Your task to perform on an android device: turn on bluetooth scan Image 0: 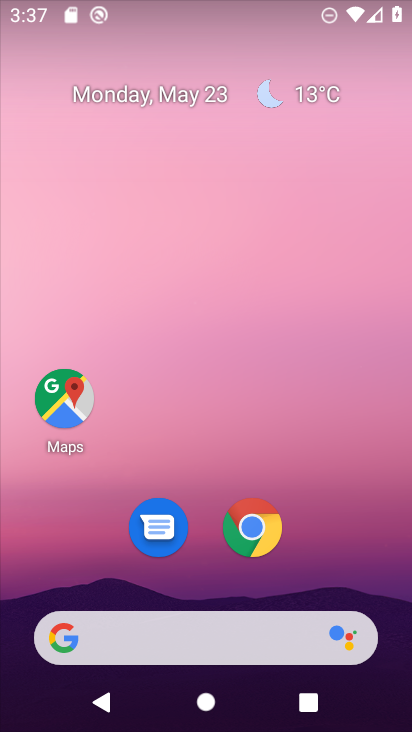
Step 0: press home button
Your task to perform on an android device: turn on bluetooth scan Image 1: 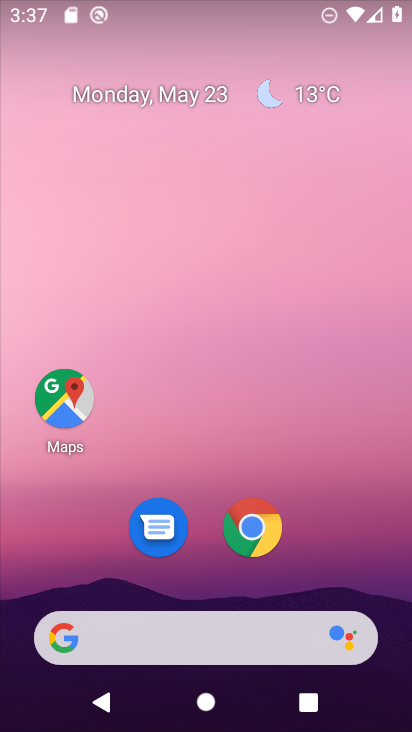
Step 1: drag from (232, 291) to (248, 94)
Your task to perform on an android device: turn on bluetooth scan Image 2: 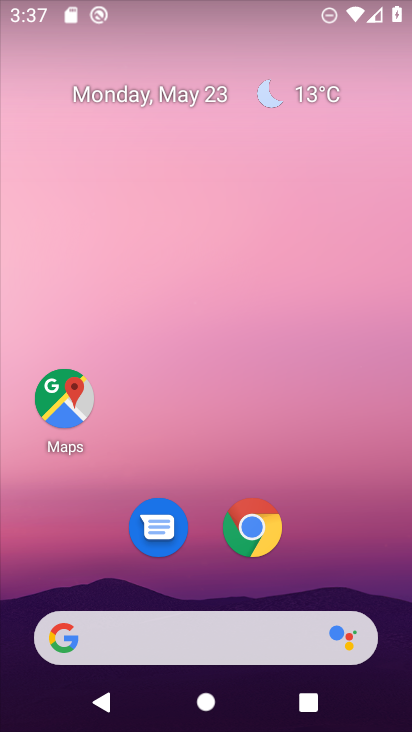
Step 2: drag from (210, 585) to (202, 56)
Your task to perform on an android device: turn on bluetooth scan Image 3: 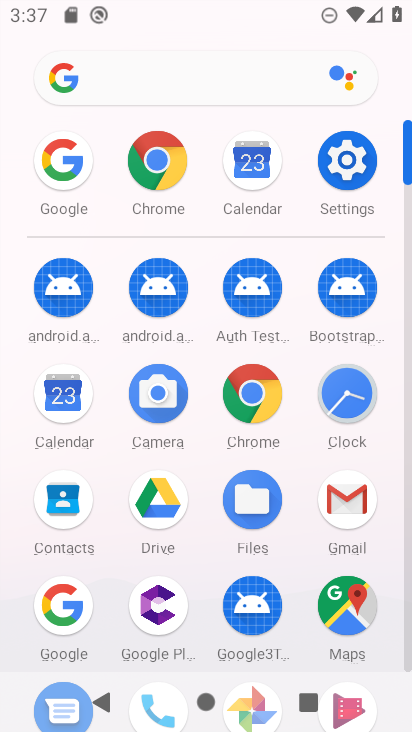
Step 3: click (342, 156)
Your task to perform on an android device: turn on bluetooth scan Image 4: 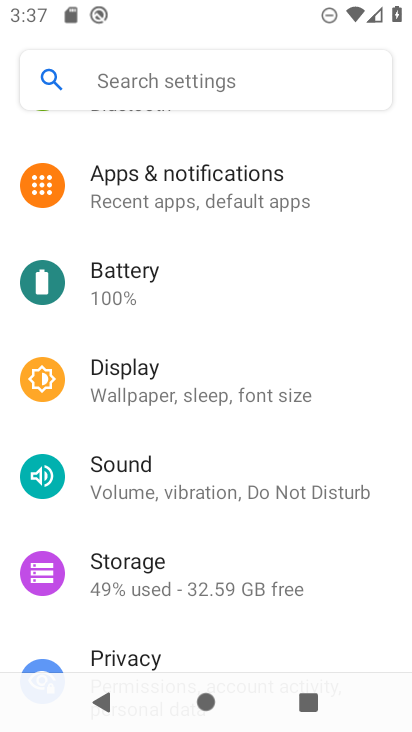
Step 4: drag from (210, 639) to (210, 189)
Your task to perform on an android device: turn on bluetooth scan Image 5: 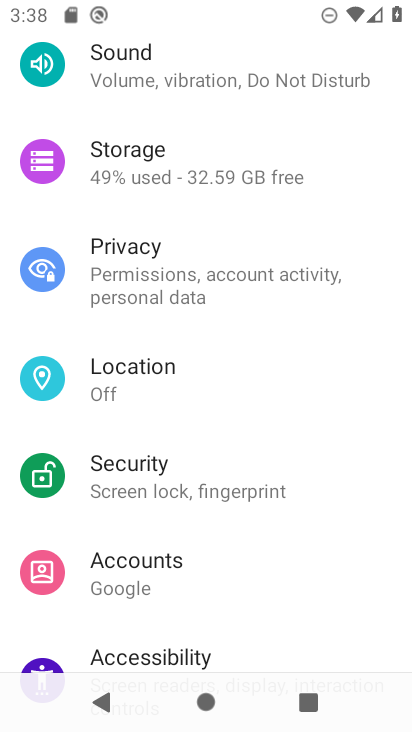
Step 5: click (161, 385)
Your task to perform on an android device: turn on bluetooth scan Image 6: 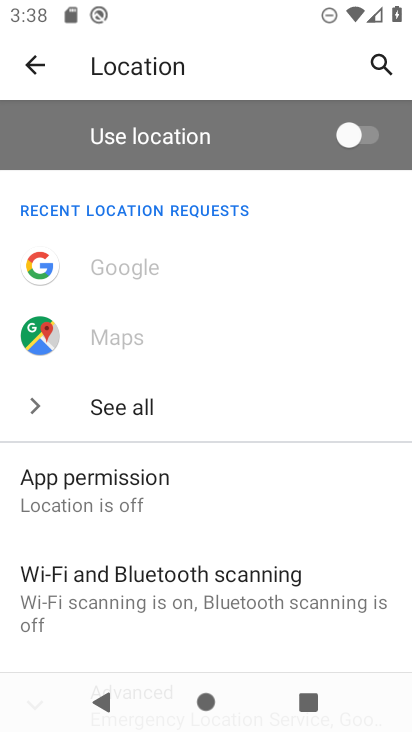
Step 6: click (236, 603)
Your task to perform on an android device: turn on bluetooth scan Image 7: 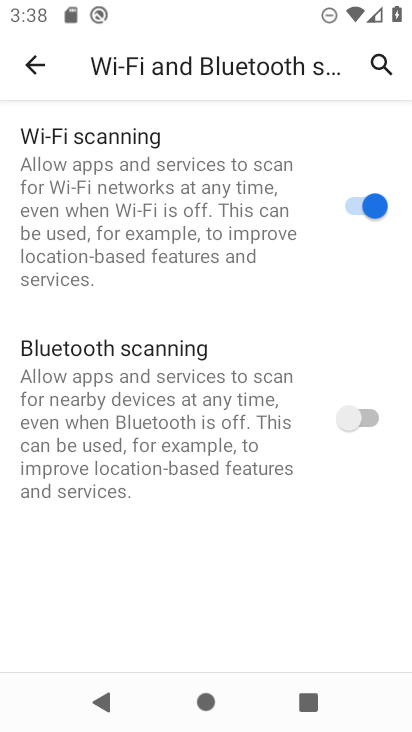
Step 7: click (363, 422)
Your task to perform on an android device: turn on bluetooth scan Image 8: 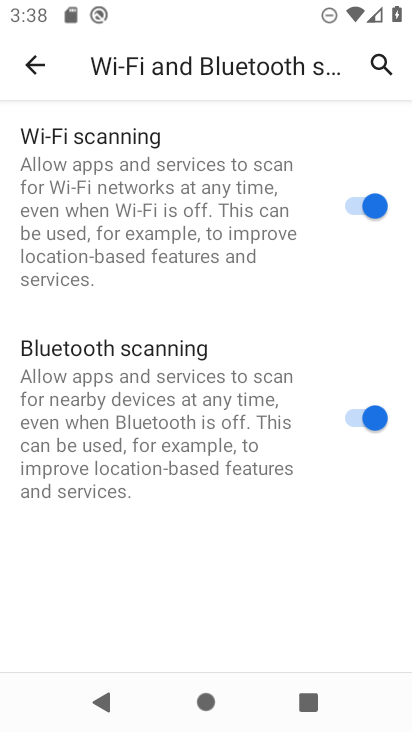
Step 8: task complete